Your task to perform on an android device: turn off improve location accuracy Image 0: 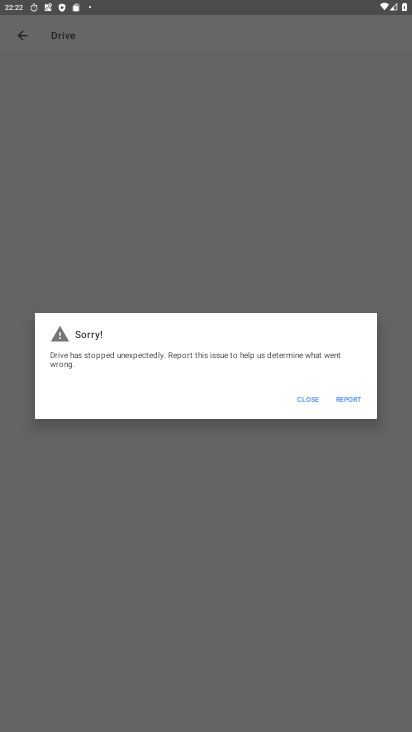
Step 0: press home button
Your task to perform on an android device: turn off improve location accuracy Image 1: 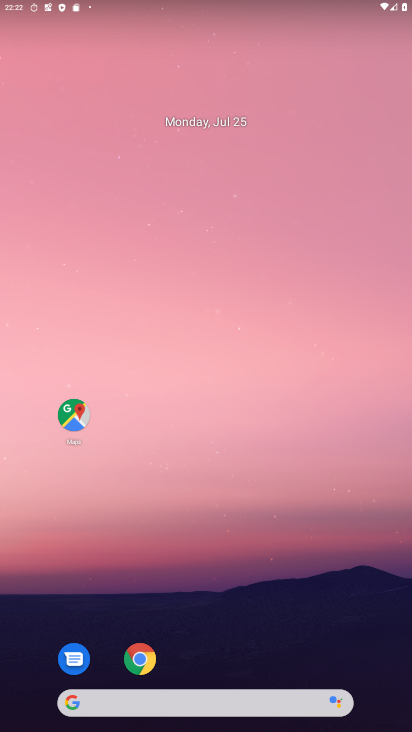
Step 1: drag from (209, 609) to (225, 273)
Your task to perform on an android device: turn off improve location accuracy Image 2: 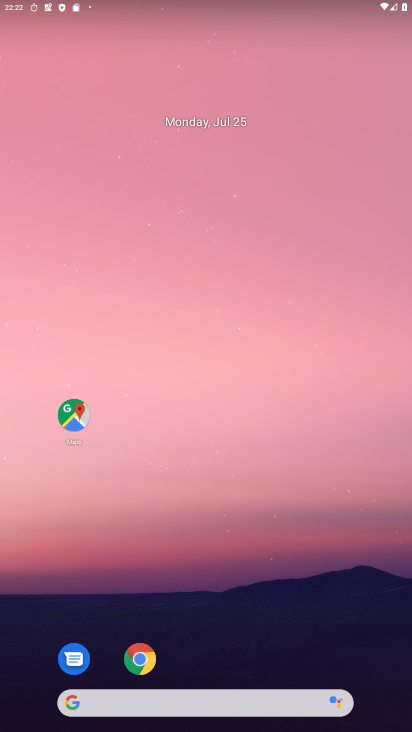
Step 2: drag from (215, 664) to (230, 225)
Your task to perform on an android device: turn off improve location accuracy Image 3: 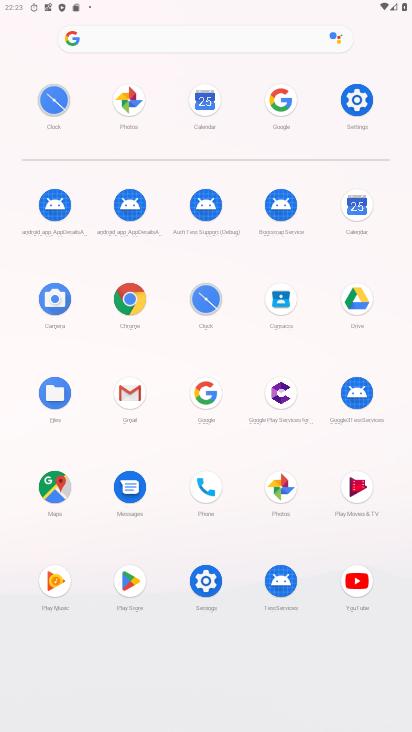
Step 3: click (348, 99)
Your task to perform on an android device: turn off improve location accuracy Image 4: 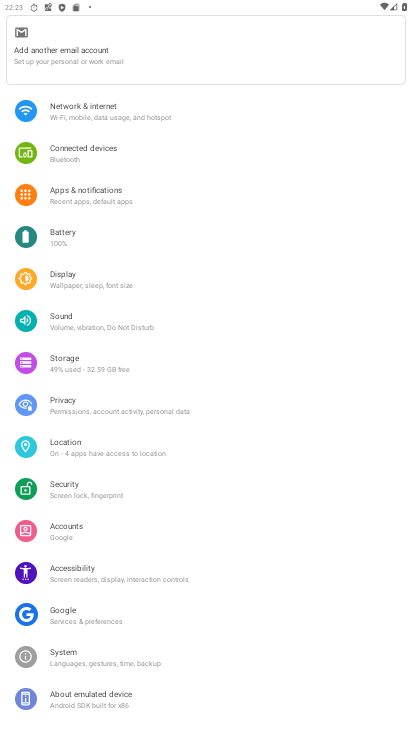
Step 4: click (142, 446)
Your task to perform on an android device: turn off improve location accuracy Image 5: 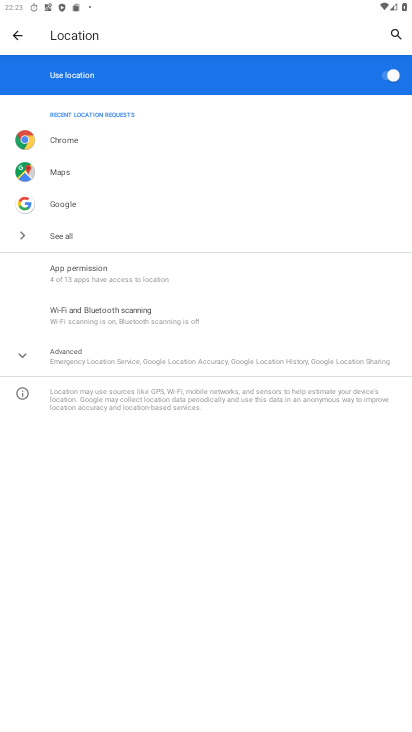
Step 5: click (103, 356)
Your task to perform on an android device: turn off improve location accuracy Image 6: 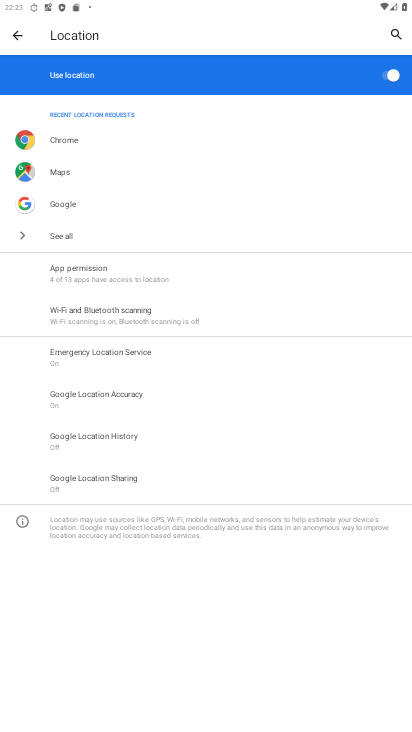
Step 6: click (92, 403)
Your task to perform on an android device: turn off improve location accuracy Image 7: 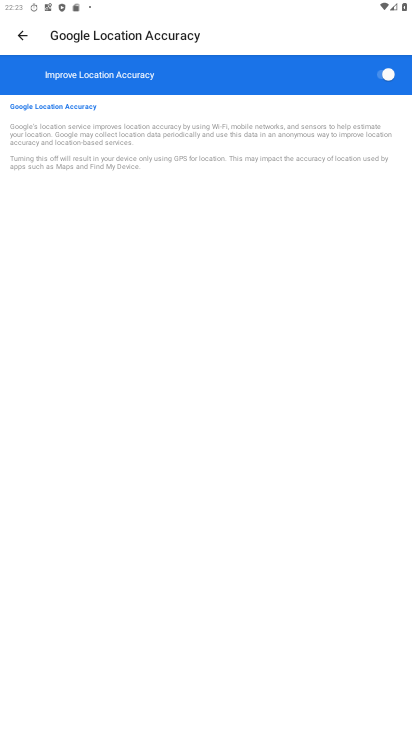
Step 7: click (378, 72)
Your task to perform on an android device: turn off improve location accuracy Image 8: 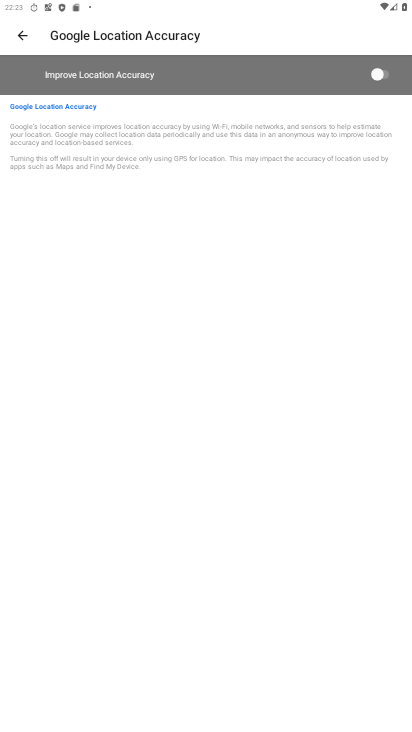
Step 8: task complete